Your task to perform on an android device: Open Chrome and go to settings Image 0: 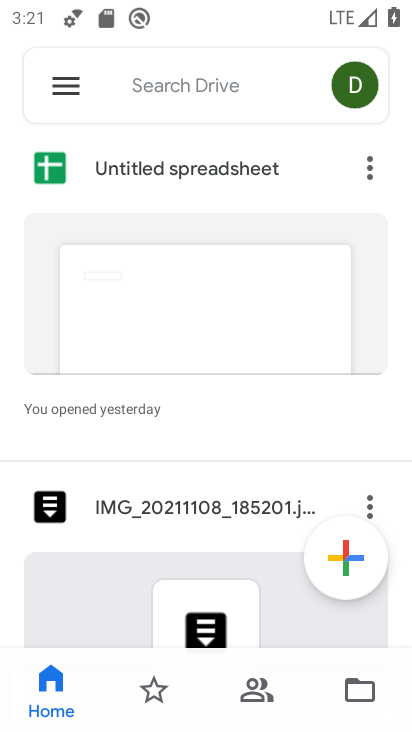
Step 0: press home button
Your task to perform on an android device: Open Chrome and go to settings Image 1: 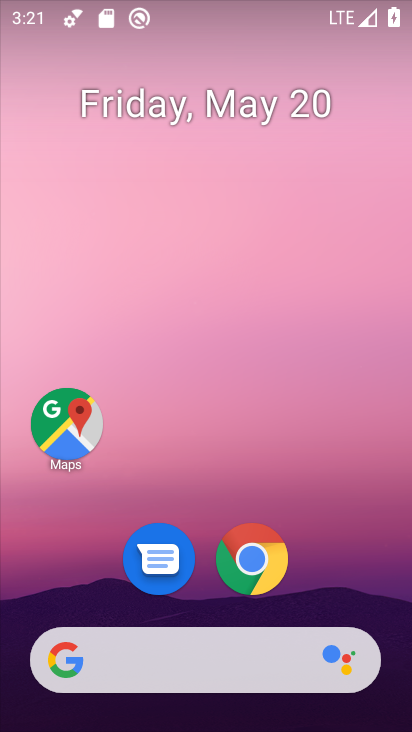
Step 1: click (269, 565)
Your task to perform on an android device: Open Chrome and go to settings Image 2: 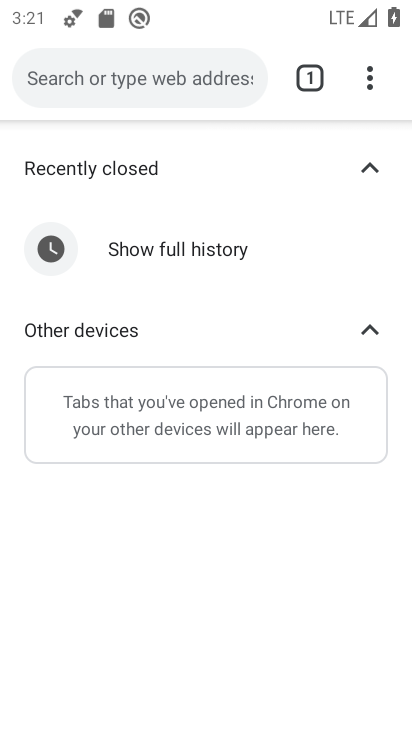
Step 2: click (370, 86)
Your task to perform on an android device: Open Chrome and go to settings Image 3: 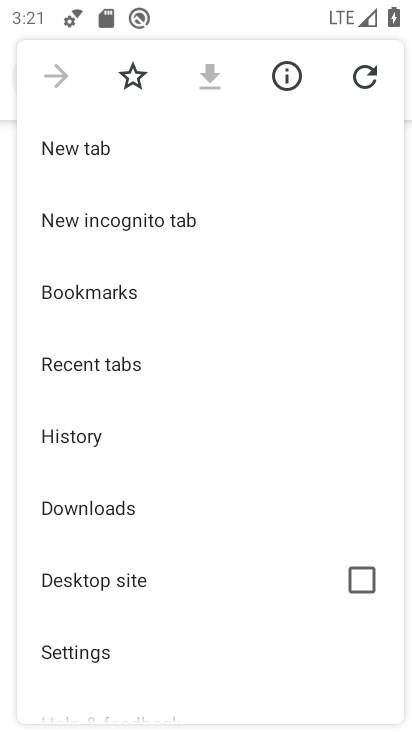
Step 3: click (110, 648)
Your task to perform on an android device: Open Chrome and go to settings Image 4: 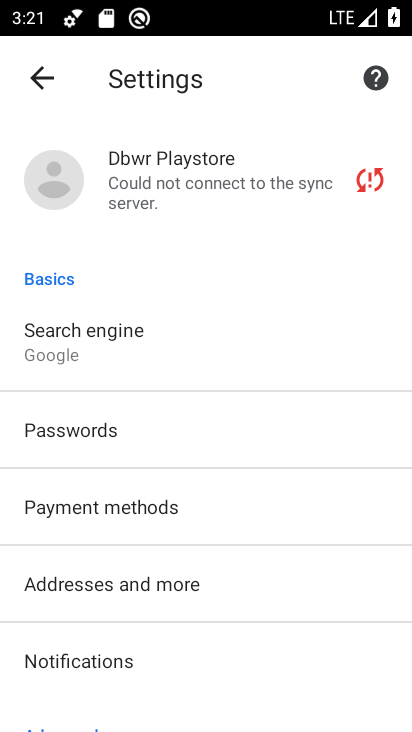
Step 4: task complete